Your task to perform on an android device: toggle javascript in the chrome app Image 0: 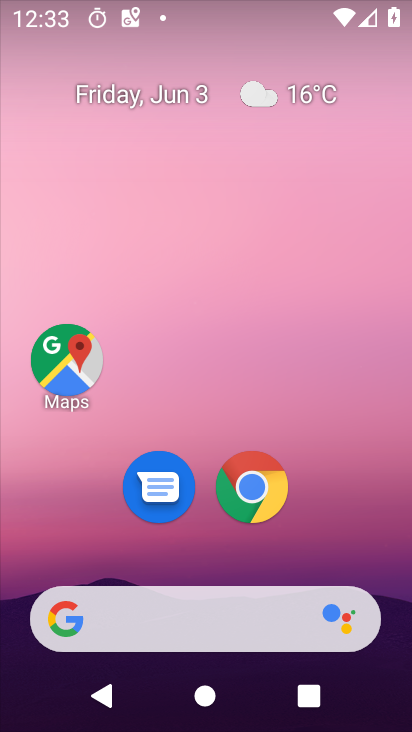
Step 0: click (254, 517)
Your task to perform on an android device: toggle javascript in the chrome app Image 1: 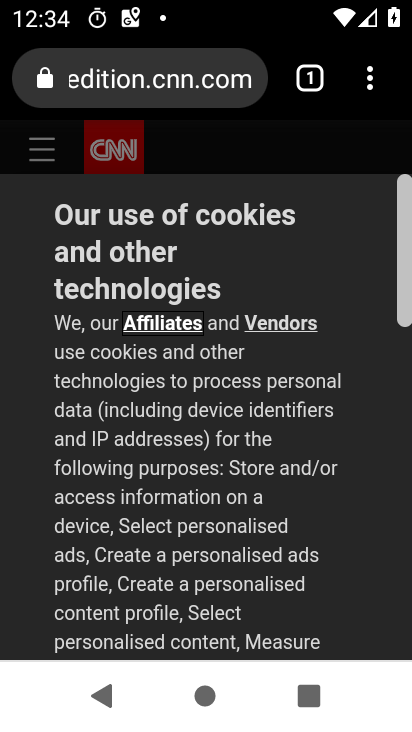
Step 1: drag from (365, 73) to (93, 555)
Your task to perform on an android device: toggle javascript in the chrome app Image 2: 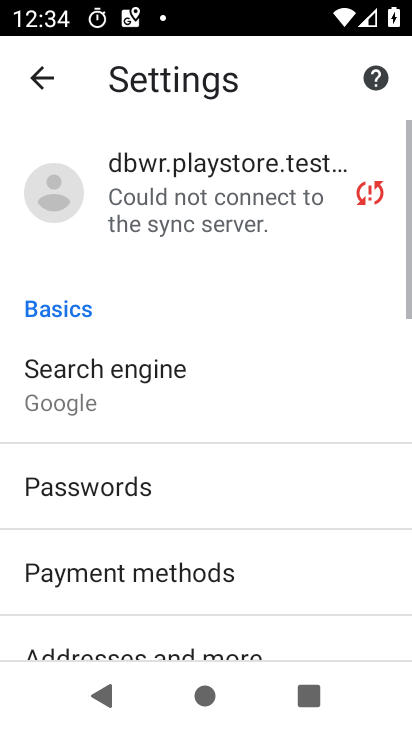
Step 2: drag from (190, 542) to (50, 3)
Your task to perform on an android device: toggle javascript in the chrome app Image 3: 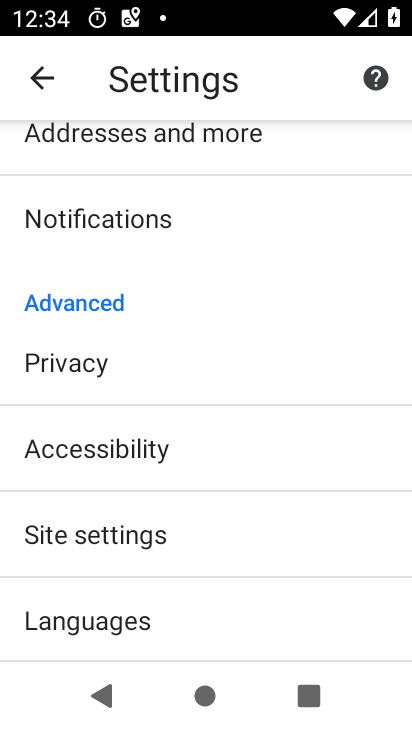
Step 3: click (142, 535)
Your task to perform on an android device: toggle javascript in the chrome app Image 4: 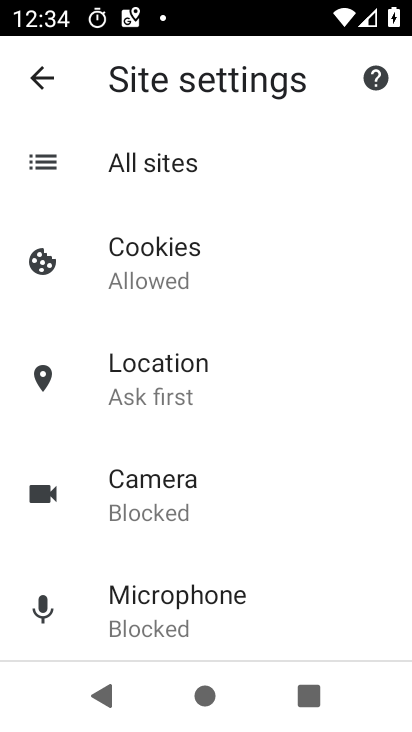
Step 4: drag from (267, 584) to (202, 150)
Your task to perform on an android device: toggle javascript in the chrome app Image 5: 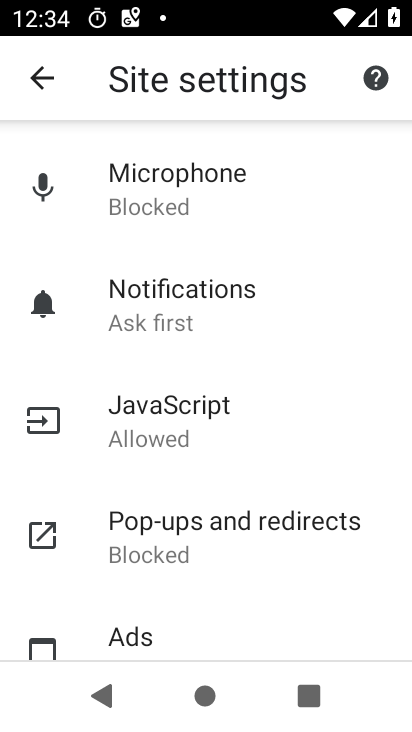
Step 5: click (153, 447)
Your task to perform on an android device: toggle javascript in the chrome app Image 6: 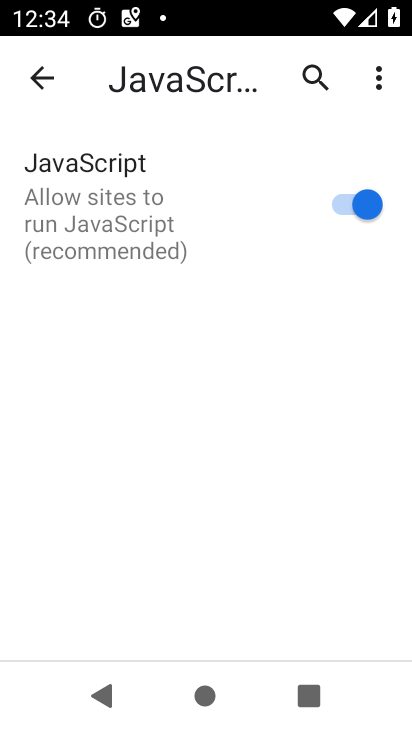
Step 6: click (347, 200)
Your task to perform on an android device: toggle javascript in the chrome app Image 7: 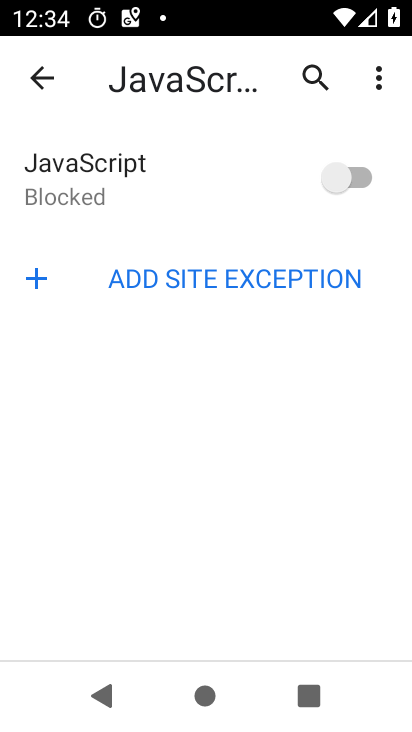
Step 7: task complete